Your task to perform on an android device: Open network settings Image 0: 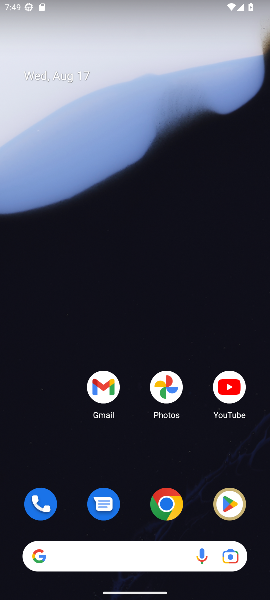
Step 0: drag from (138, 359) to (184, 90)
Your task to perform on an android device: Open network settings Image 1: 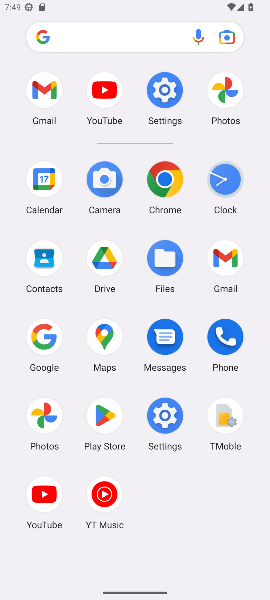
Step 1: click (164, 404)
Your task to perform on an android device: Open network settings Image 2: 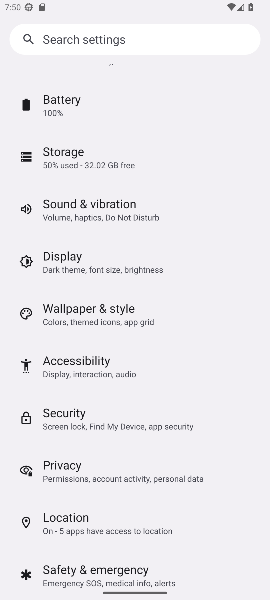
Step 2: drag from (133, 178) to (142, 546)
Your task to perform on an android device: Open network settings Image 3: 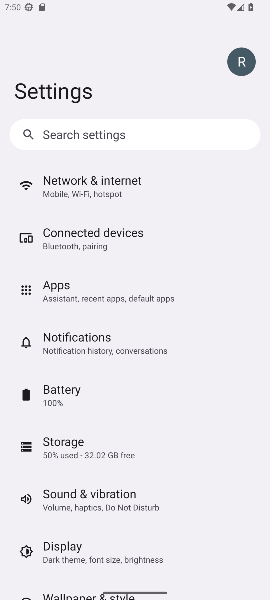
Step 3: click (116, 196)
Your task to perform on an android device: Open network settings Image 4: 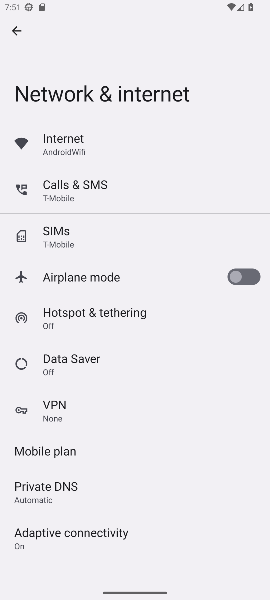
Step 4: click (94, 149)
Your task to perform on an android device: Open network settings Image 5: 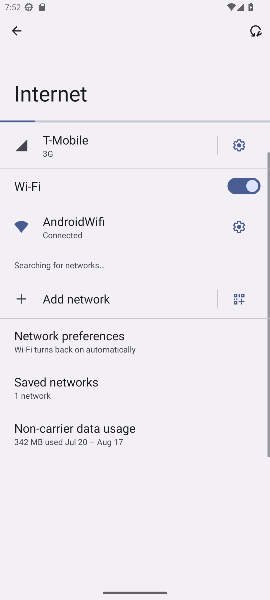
Step 5: task complete